Your task to perform on an android device: delete a single message in the gmail app Image 0: 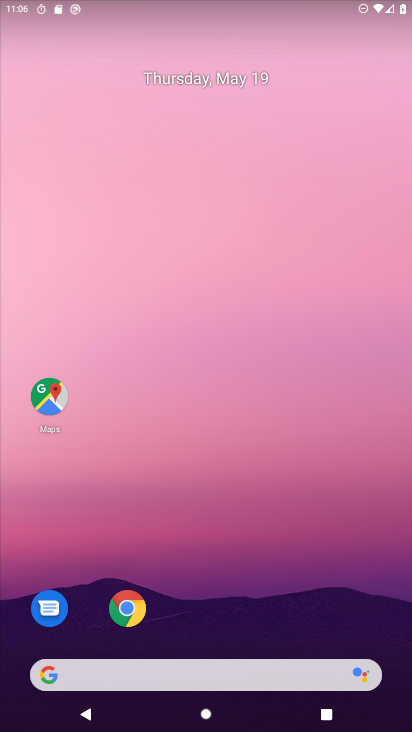
Step 0: drag from (399, 593) to (395, 312)
Your task to perform on an android device: delete a single message in the gmail app Image 1: 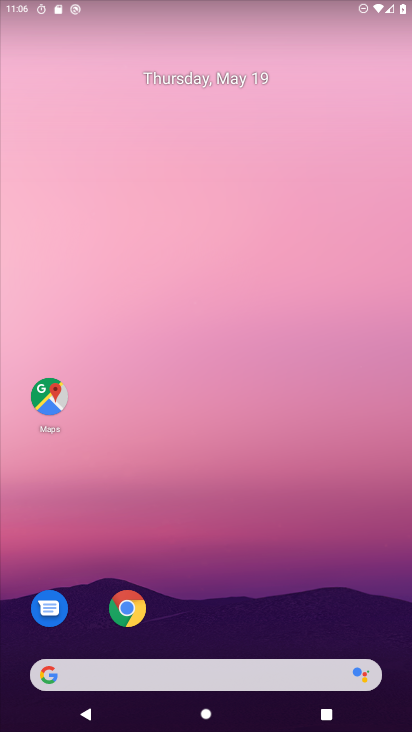
Step 1: drag from (396, 598) to (344, 135)
Your task to perform on an android device: delete a single message in the gmail app Image 2: 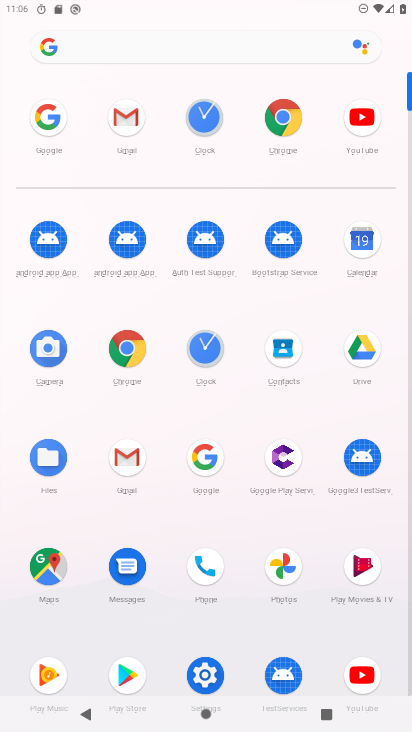
Step 2: click (126, 456)
Your task to perform on an android device: delete a single message in the gmail app Image 3: 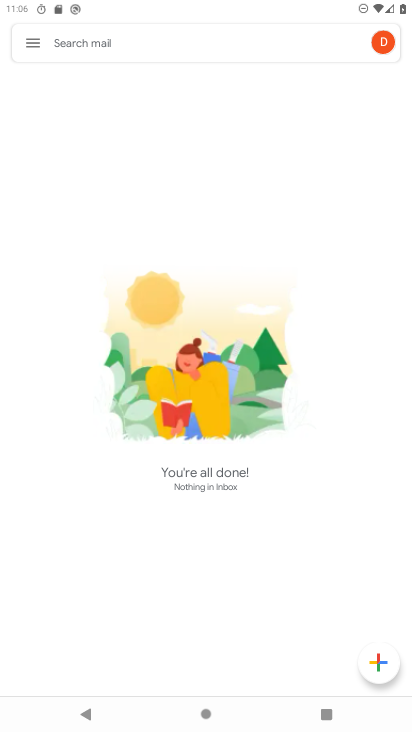
Step 3: click (37, 46)
Your task to perform on an android device: delete a single message in the gmail app Image 4: 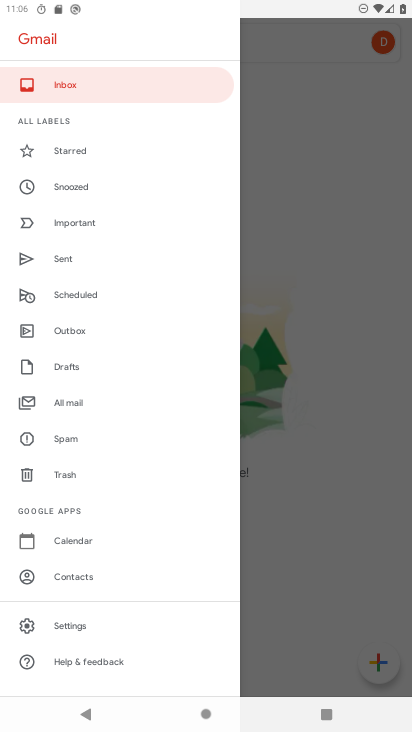
Step 4: click (83, 94)
Your task to perform on an android device: delete a single message in the gmail app Image 5: 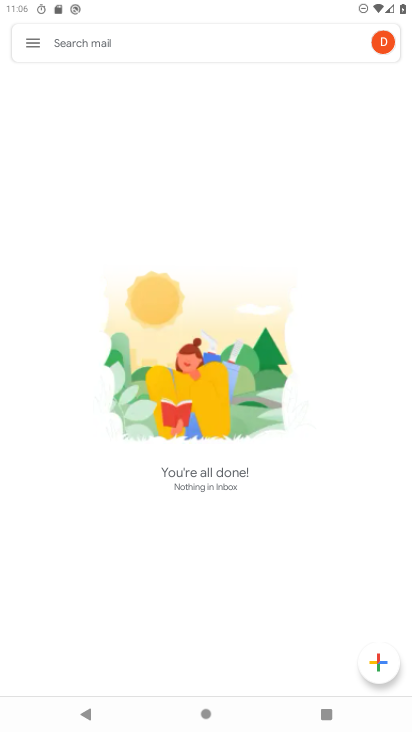
Step 5: task complete